Your task to perform on an android device: What's on my calendar tomorrow? Image 0: 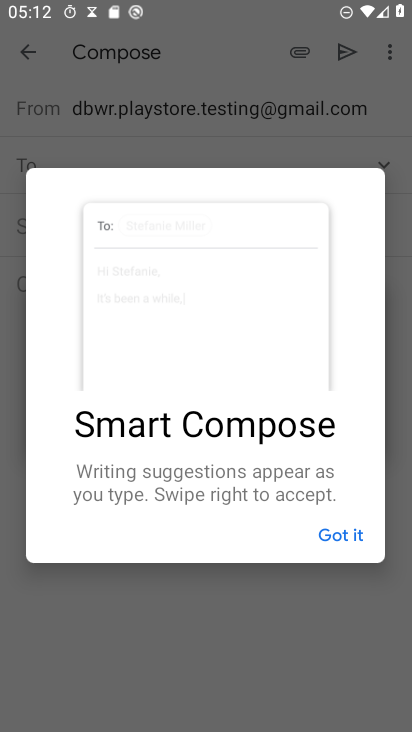
Step 0: press home button
Your task to perform on an android device: What's on my calendar tomorrow? Image 1: 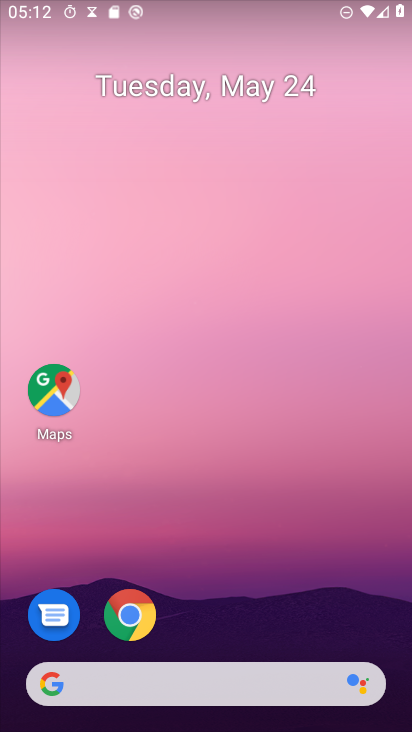
Step 1: drag from (206, 628) to (326, 0)
Your task to perform on an android device: What's on my calendar tomorrow? Image 2: 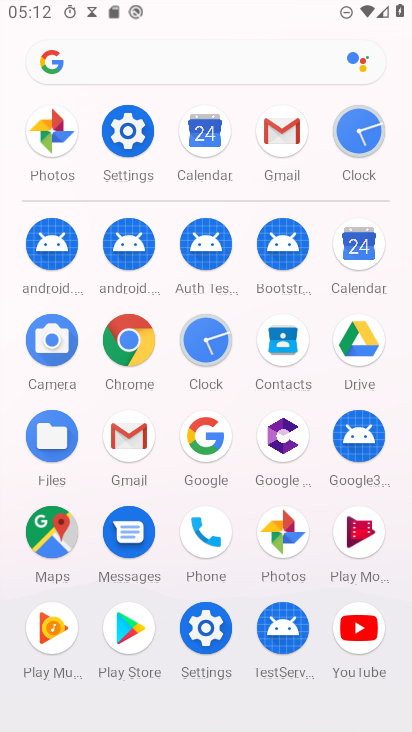
Step 2: click (346, 266)
Your task to perform on an android device: What's on my calendar tomorrow? Image 3: 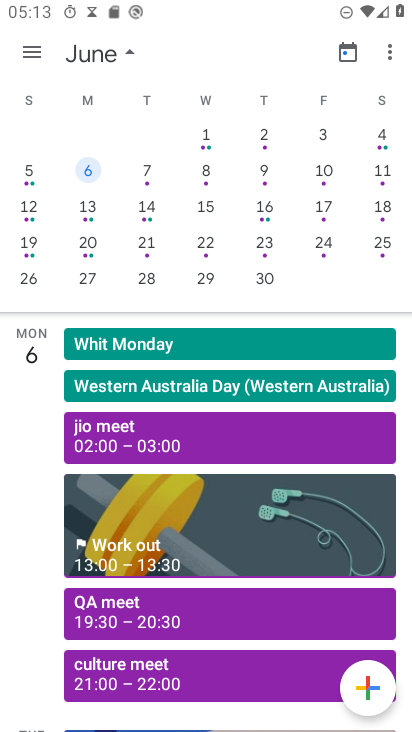
Step 3: drag from (18, 223) to (362, 225)
Your task to perform on an android device: What's on my calendar tomorrow? Image 4: 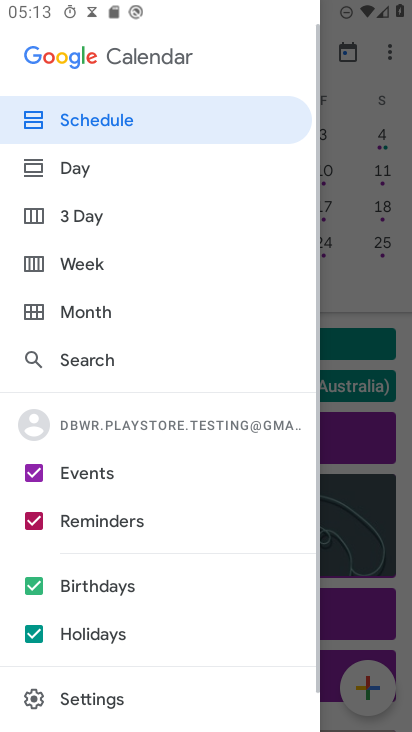
Step 4: drag from (352, 236) to (74, 245)
Your task to perform on an android device: What's on my calendar tomorrow? Image 5: 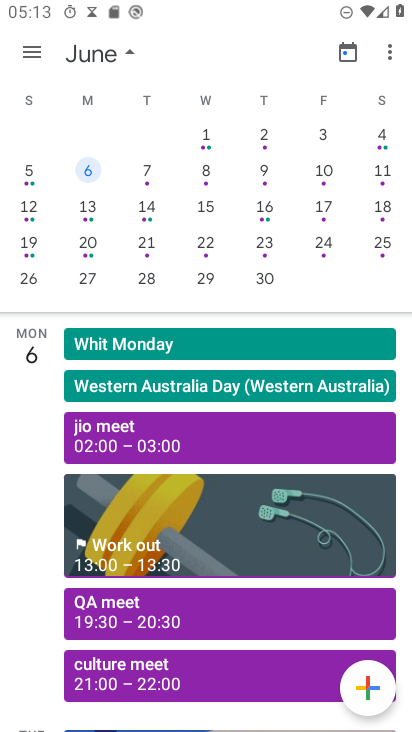
Step 5: drag from (72, 223) to (372, 199)
Your task to perform on an android device: What's on my calendar tomorrow? Image 6: 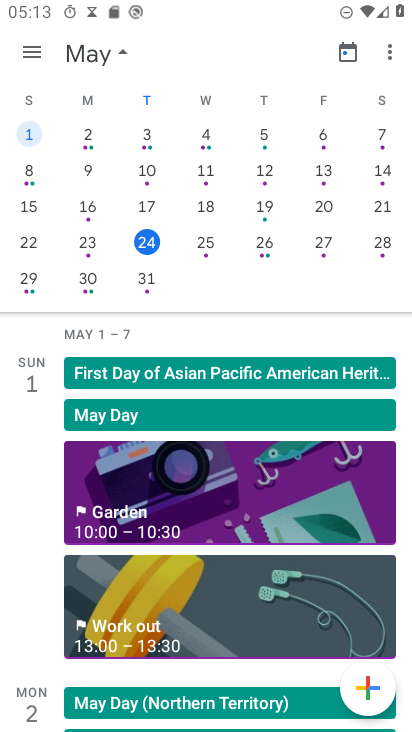
Step 6: click (147, 248)
Your task to perform on an android device: What's on my calendar tomorrow? Image 7: 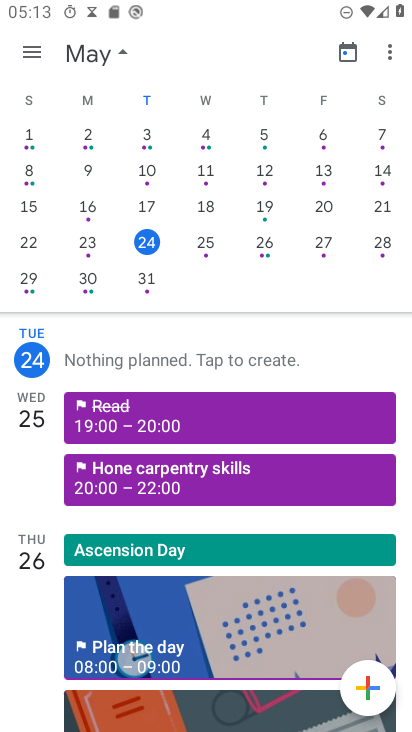
Step 7: task complete